Your task to perform on an android device: check storage Image 0: 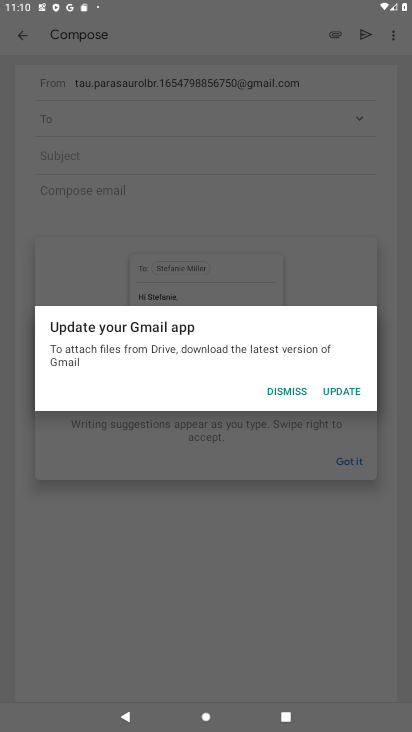
Step 0: press home button
Your task to perform on an android device: check storage Image 1: 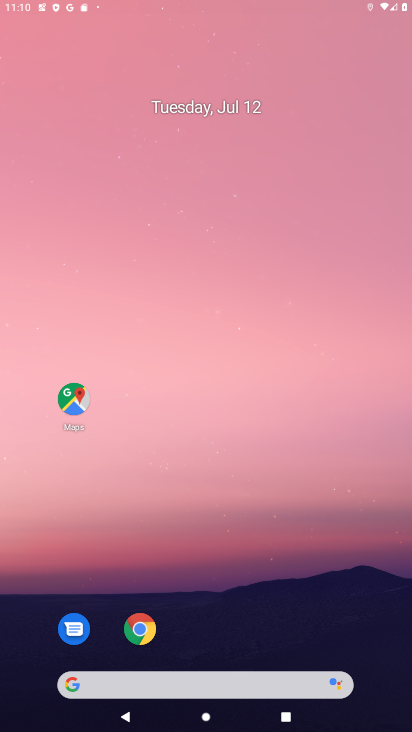
Step 1: drag from (173, 634) to (212, 239)
Your task to perform on an android device: check storage Image 2: 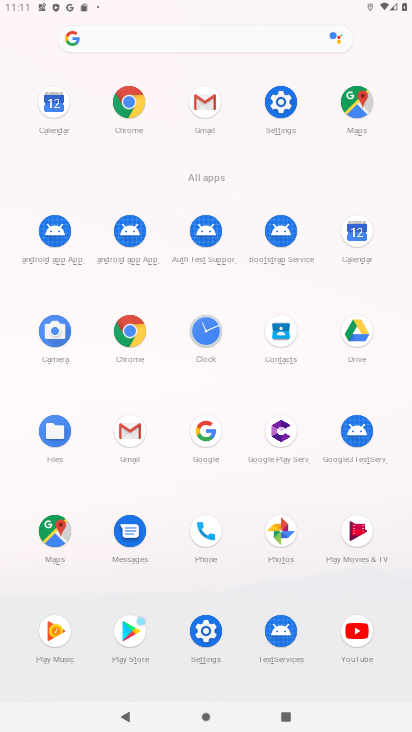
Step 2: click (259, 91)
Your task to perform on an android device: check storage Image 3: 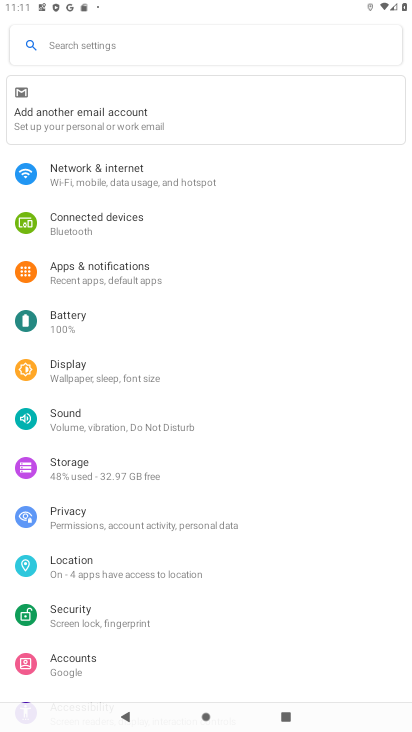
Step 3: click (103, 472)
Your task to perform on an android device: check storage Image 4: 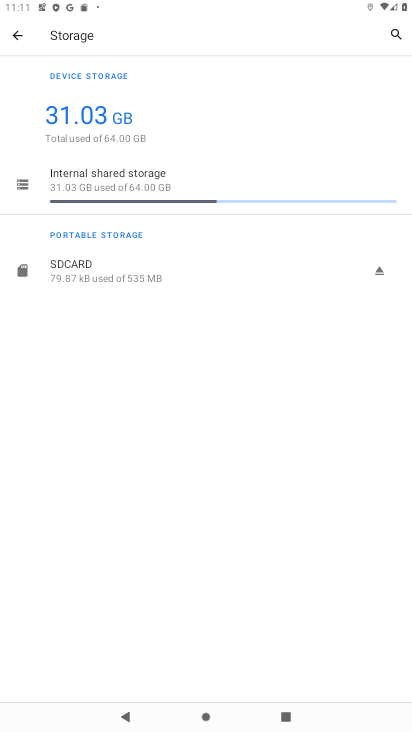
Step 4: task complete